Your task to perform on an android device: change text size in settings app Image 0: 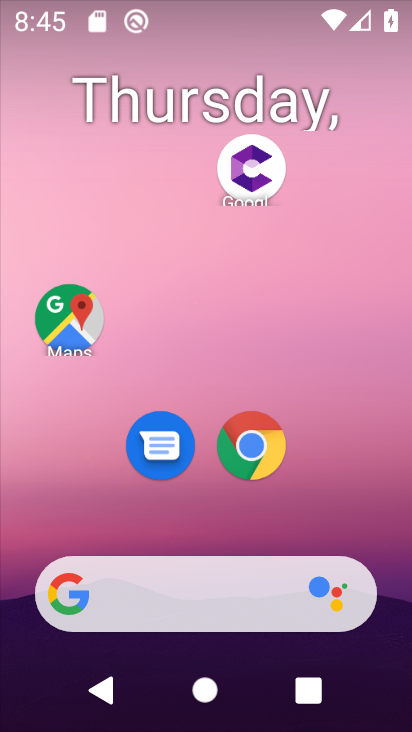
Step 0: click (236, 37)
Your task to perform on an android device: change text size in settings app Image 1: 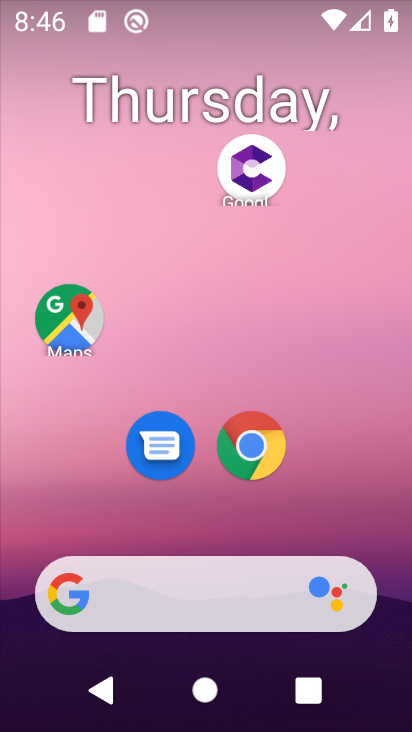
Step 1: drag from (211, 429) to (265, 6)
Your task to perform on an android device: change text size in settings app Image 2: 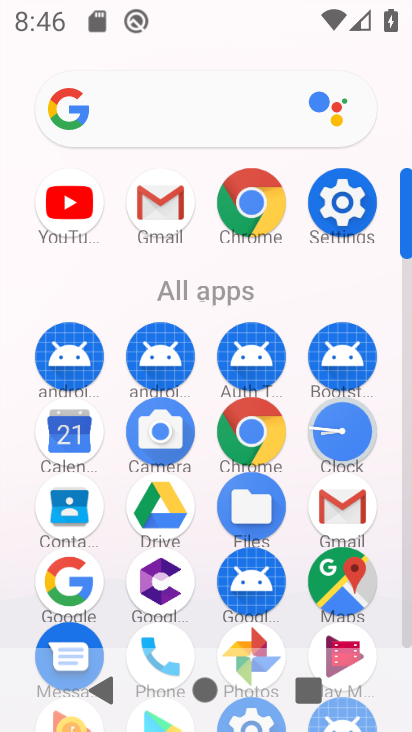
Step 2: click (338, 196)
Your task to perform on an android device: change text size in settings app Image 3: 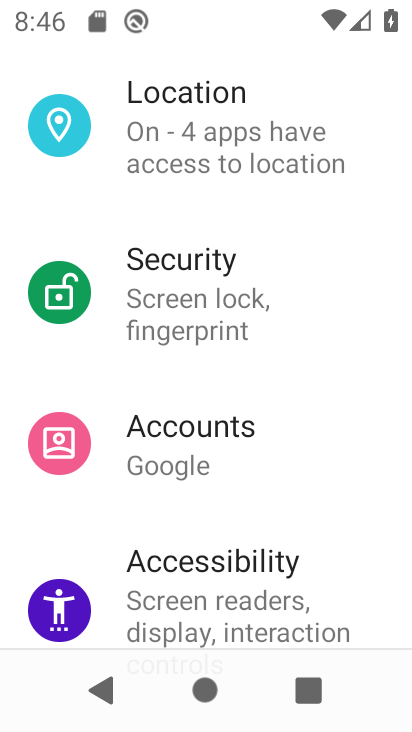
Step 3: drag from (263, 183) to (231, 711)
Your task to perform on an android device: change text size in settings app Image 4: 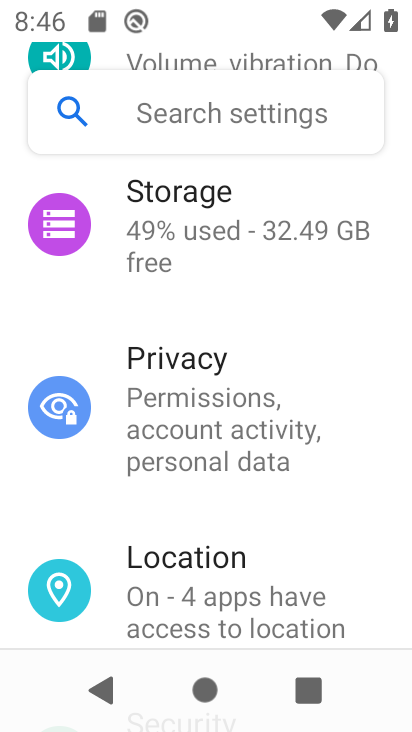
Step 4: drag from (255, 232) to (301, 716)
Your task to perform on an android device: change text size in settings app Image 5: 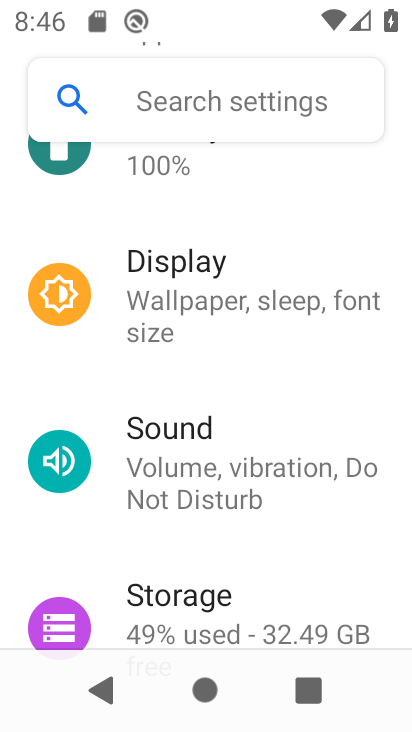
Step 5: click (239, 301)
Your task to perform on an android device: change text size in settings app Image 6: 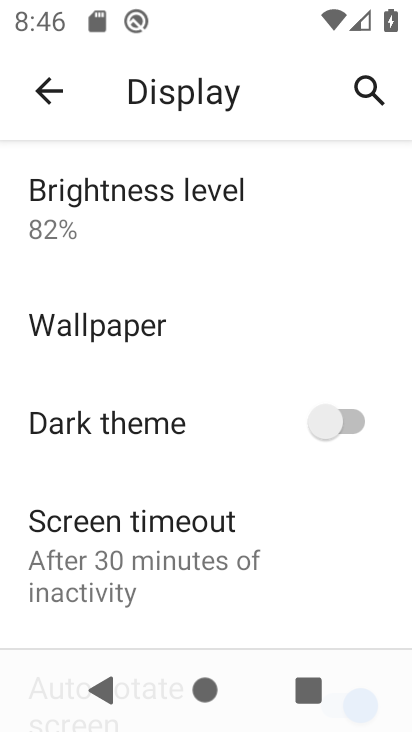
Step 6: drag from (199, 545) to (199, 173)
Your task to perform on an android device: change text size in settings app Image 7: 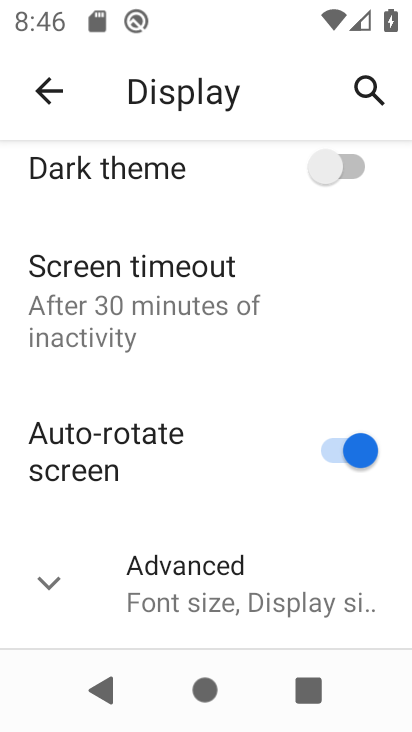
Step 7: click (187, 584)
Your task to perform on an android device: change text size in settings app Image 8: 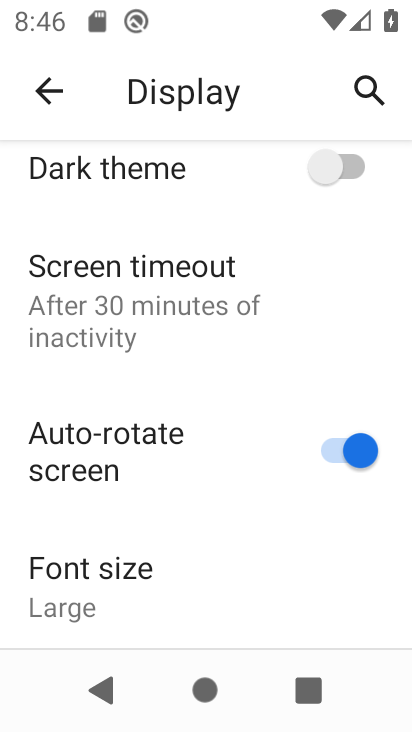
Step 8: click (137, 586)
Your task to perform on an android device: change text size in settings app Image 9: 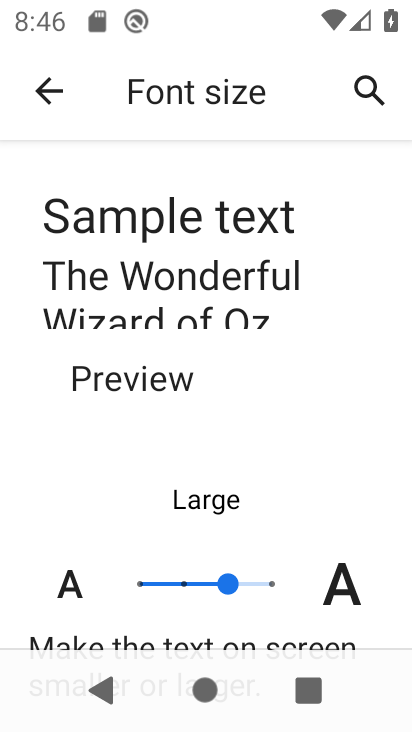
Step 9: click (140, 585)
Your task to perform on an android device: change text size in settings app Image 10: 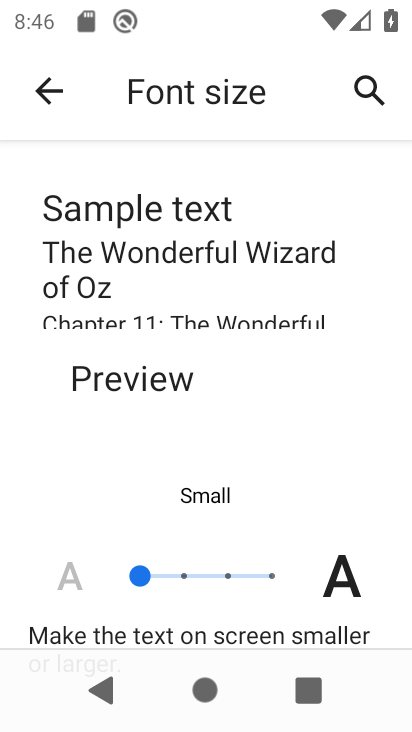
Step 10: task complete